Your task to perform on an android device: turn off picture-in-picture Image 0: 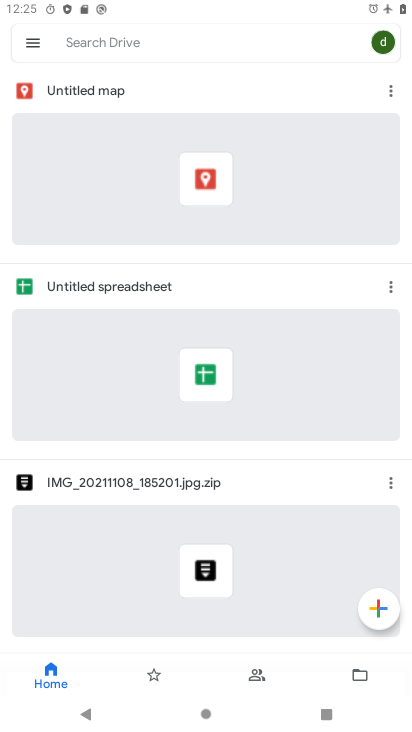
Step 0: press home button
Your task to perform on an android device: turn off picture-in-picture Image 1: 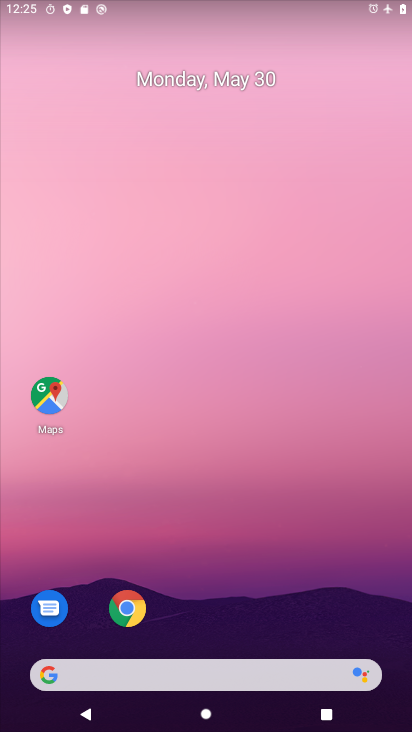
Step 1: drag from (181, 631) to (143, 3)
Your task to perform on an android device: turn off picture-in-picture Image 2: 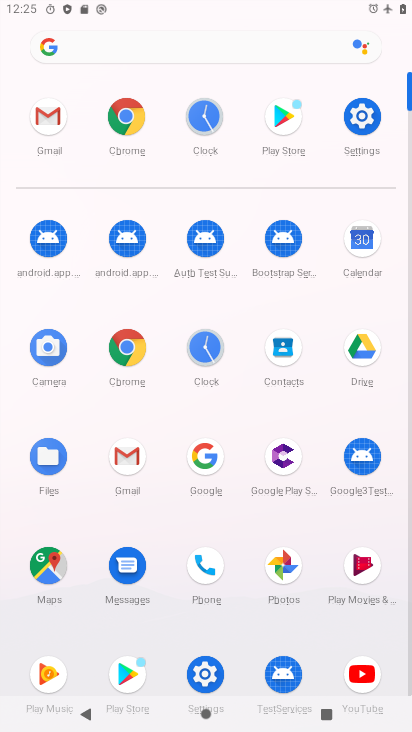
Step 2: click (355, 119)
Your task to perform on an android device: turn off picture-in-picture Image 3: 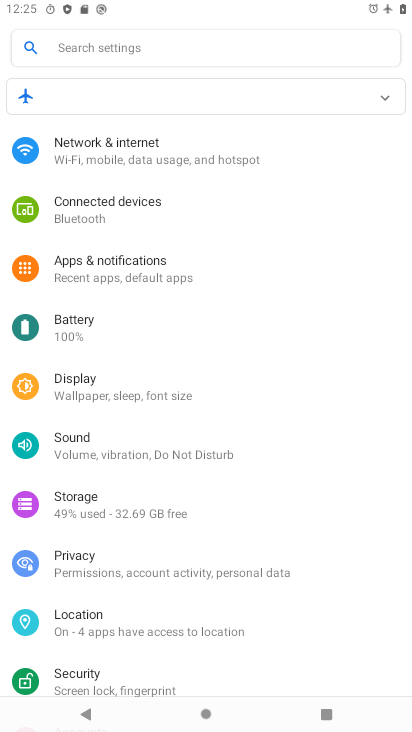
Step 3: click (143, 272)
Your task to perform on an android device: turn off picture-in-picture Image 4: 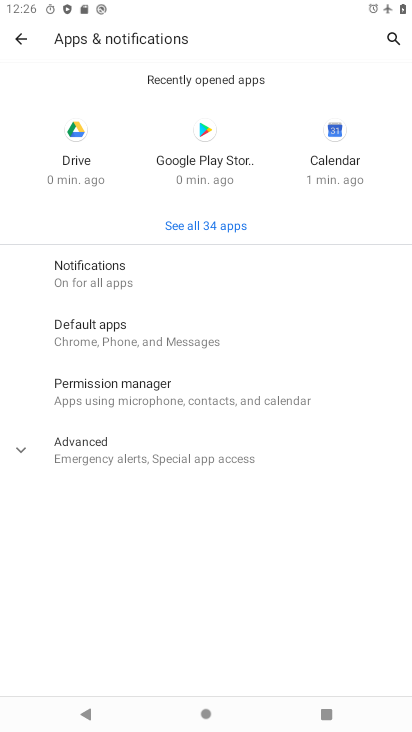
Step 4: click (152, 456)
Your task to perform on an android device: turn off picture-in-picture Image 5: 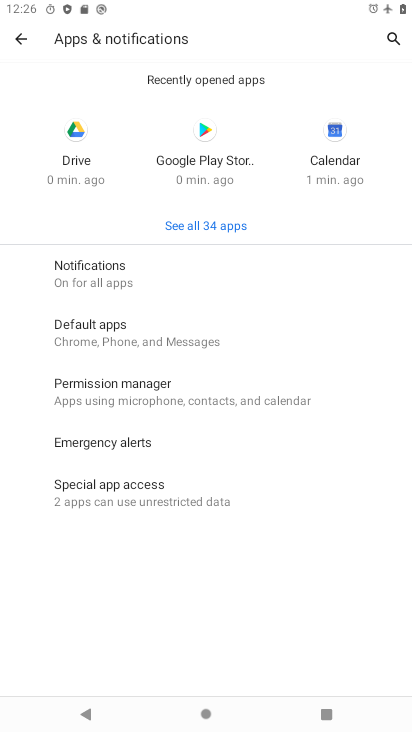
Step 5: click (142, 494)
Your task to perform on an android device: turn off picture-in-picture Image 6: 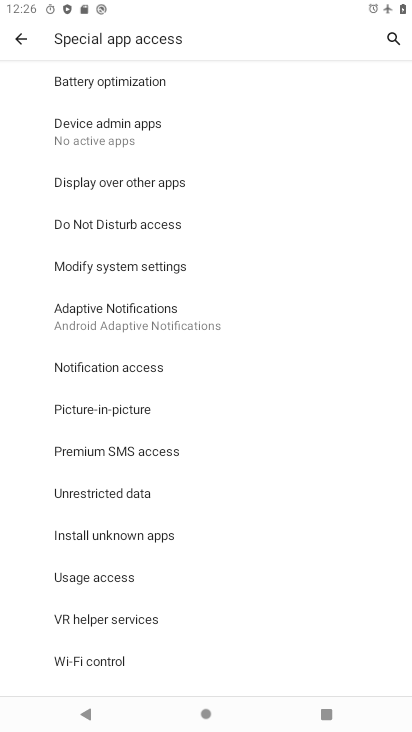
Step 6: click (73, 405)
Your task to perform on an android device: turn off picture-in-picture Image 7: 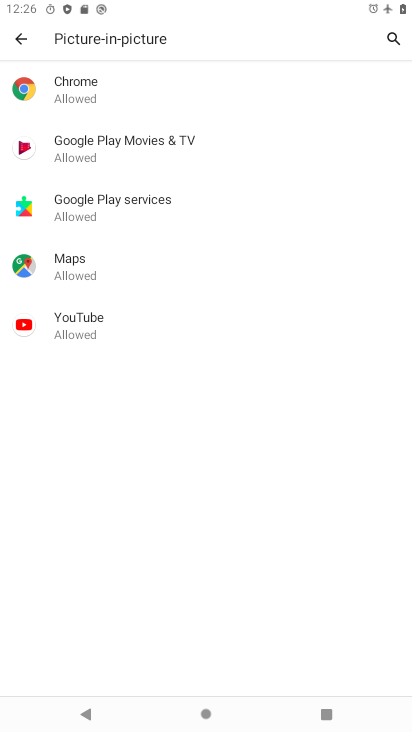
Step 7: task complete